Your task to perform on an android device: open the mobile data screen to see how much data has been used Image 0: 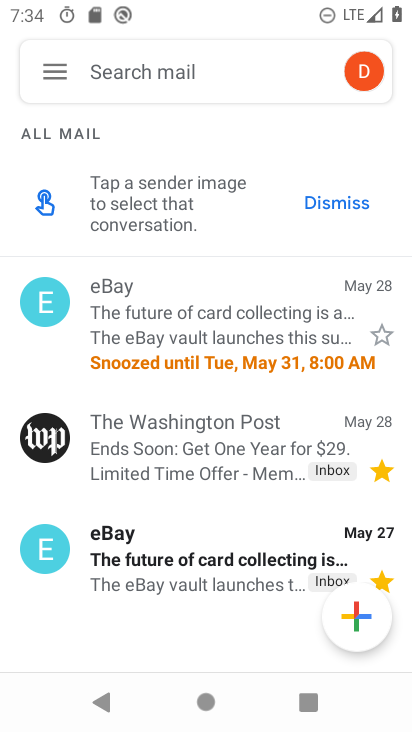
Step 0: press home button
Your task to perform on an android device: open the mobile data screen to see how much data has been used Image 1: 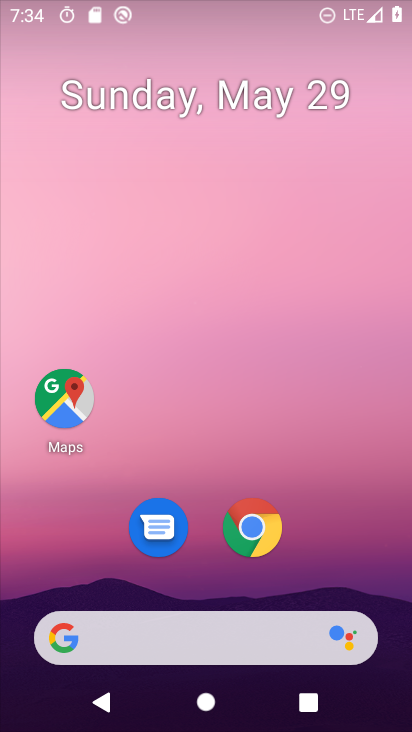
Step 1: drag from (330, 595) to (282, 21)
Your task to perform on an android device: open the mobile data screen to see how much data has been used Image 2: 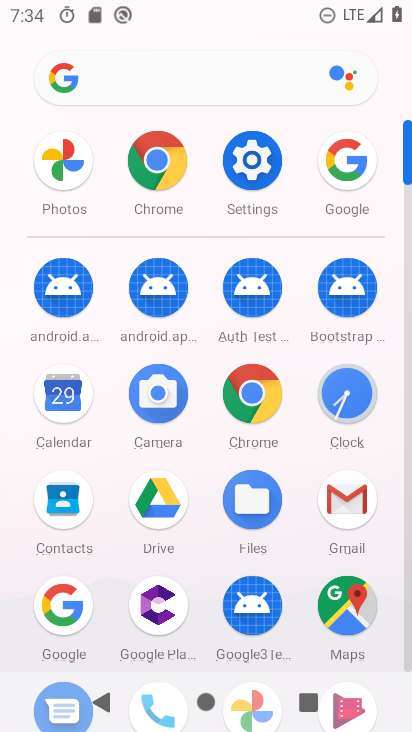
Step 2: click (259, 167)
Your task to perform on an android device: open the mobile data screen to see how much data has been used Image 3: 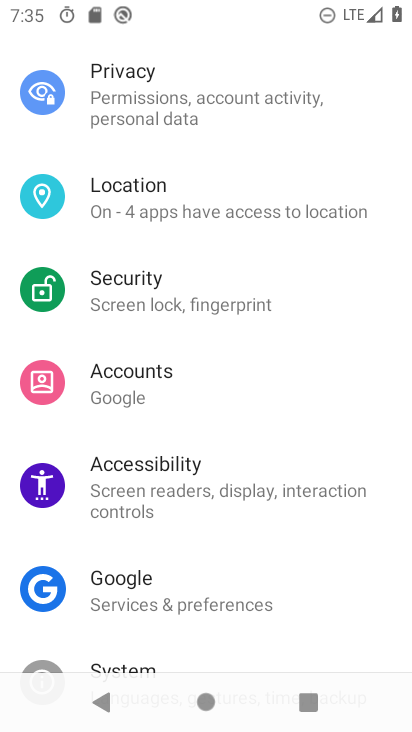
Step 3: drag from (166, 73) to (156, 585)
Your task to perform on an android device: open the mobile data screen to see how much data has been used Image 4: 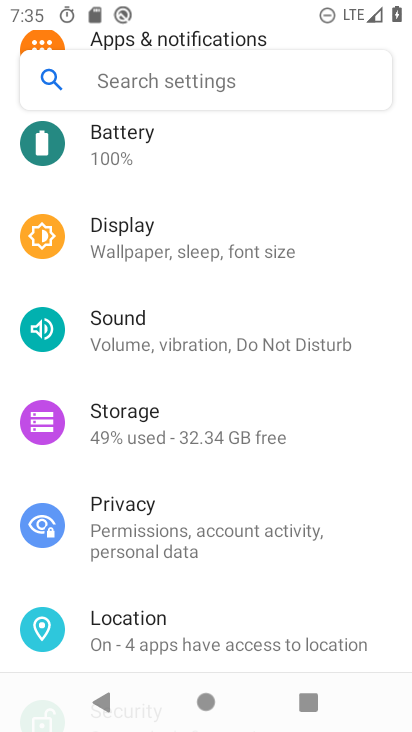
Step 4: drag from (182, 182) to (213, 494)
Your task to perform on an android device: open the mobile data screen to see how much data has been used Image 5: 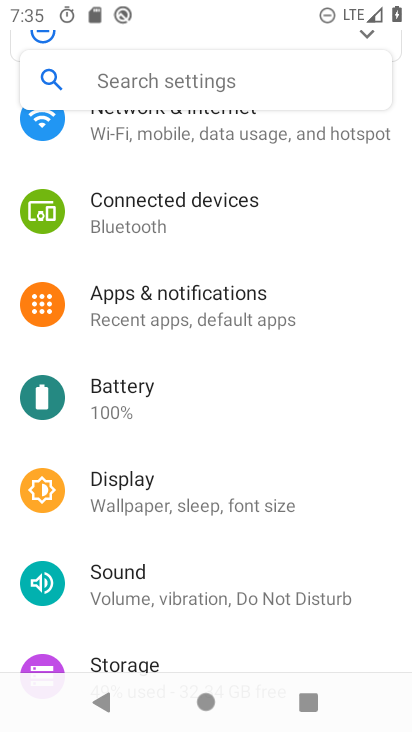
Step 5: click (174, 140)
Your task to perform on an android device: open the mobile data screen to see how much data has been used Image 6: 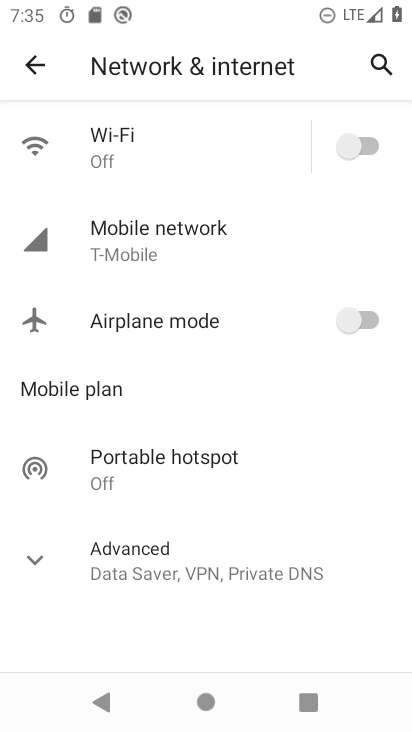
Step 6: click (163, 223)
Your task to perform on an android device: open the mobile data screen to see how much data has been used Image 7: 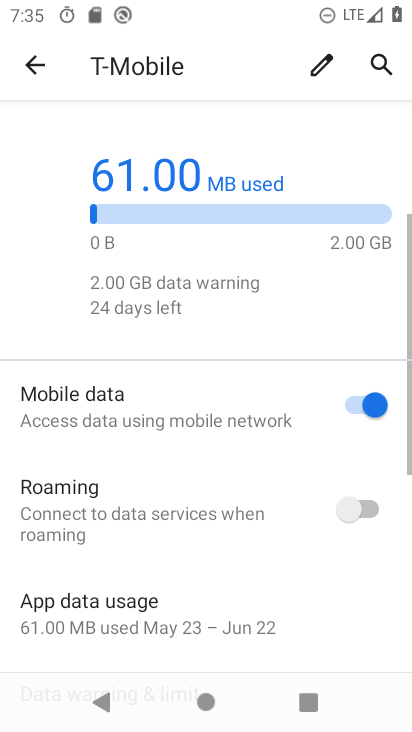
Step 7: click (106, 617)
Your task to perform on an android device: open the mobile data screen to see how much data has been used Image 8: 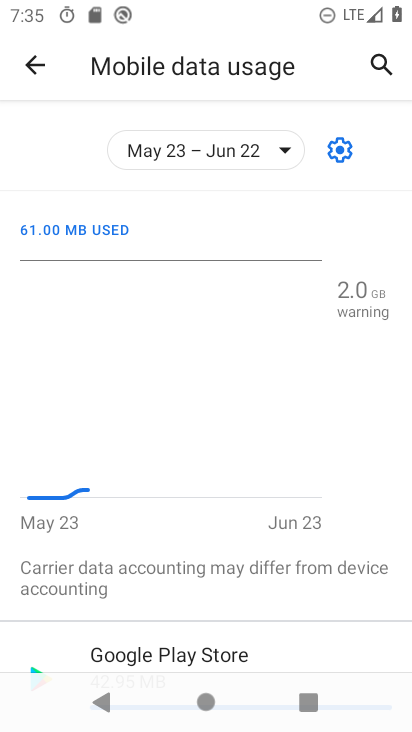
Step 8: task complete